Your task to perform on an android device: turn notification dots on Image 0: 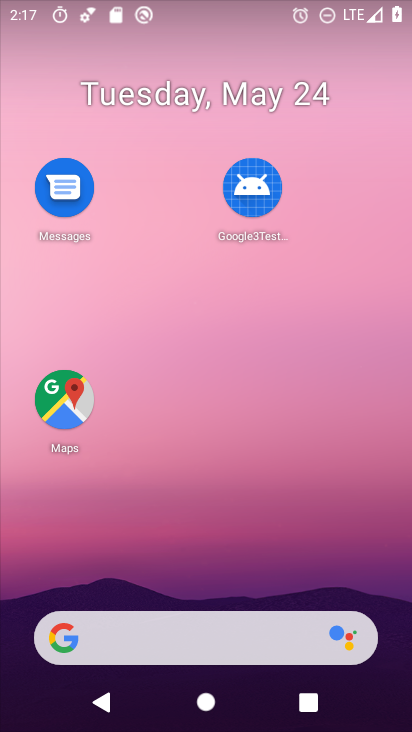
Step 0: drag from (233, 518) to (68, 73)
Your task to perform on an android device: turn notification dots on Image 1: 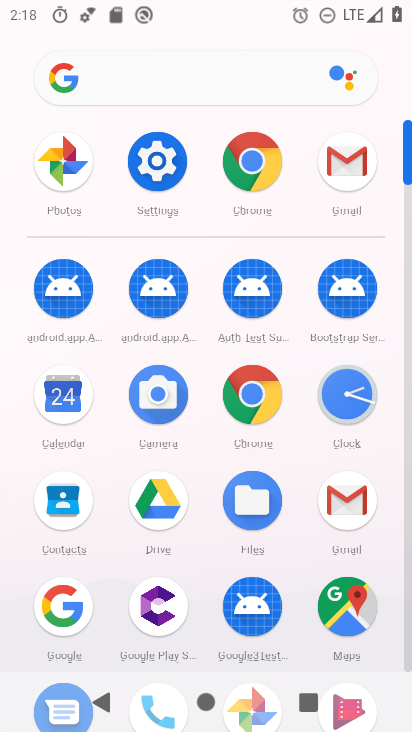
Step 1: press home button
Your task to perform on an android device: turn notification dots on Image 2: 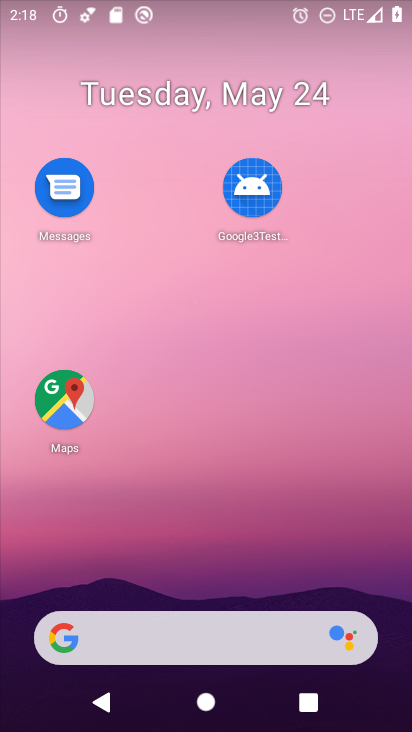
Step 2: drag from (158, 427) to (103, 82)
Your task to perform on an android device: turn notification dots on Image 3: 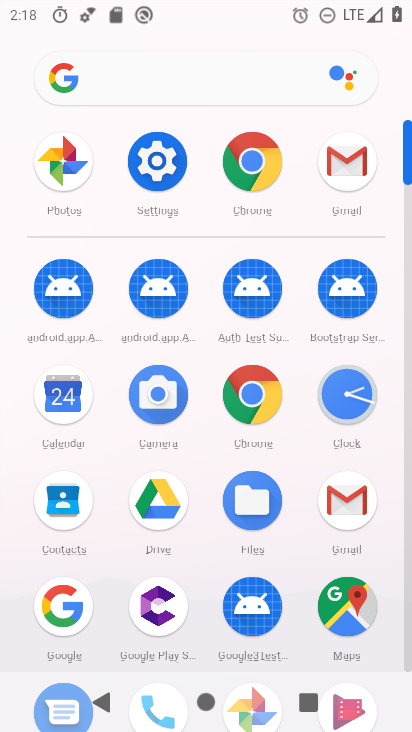
Step 3: click (150, 165)
Your task to perform on an android device: turn notification dots on Image 4: 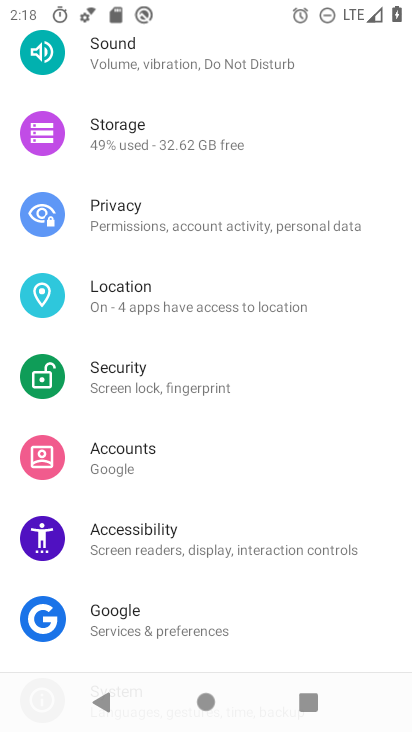
Step 4: drag from (153, 132) to (71, 686)
Your task to perform on an android device: turn notification dots on Image 5: 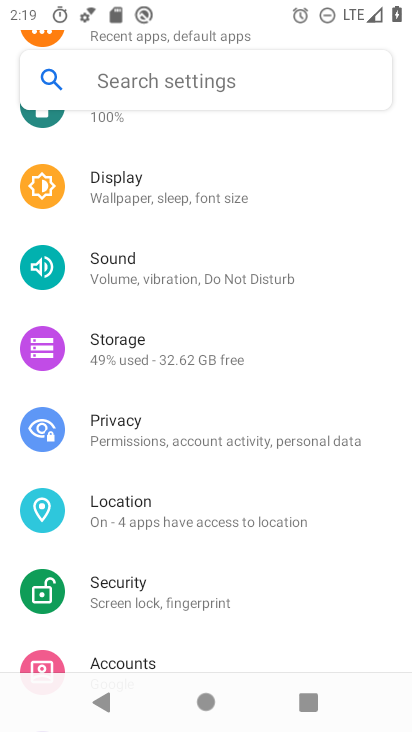
Step 5: click (94, 700)
Your task to perform on an android device: turn notification dots on Image 6: 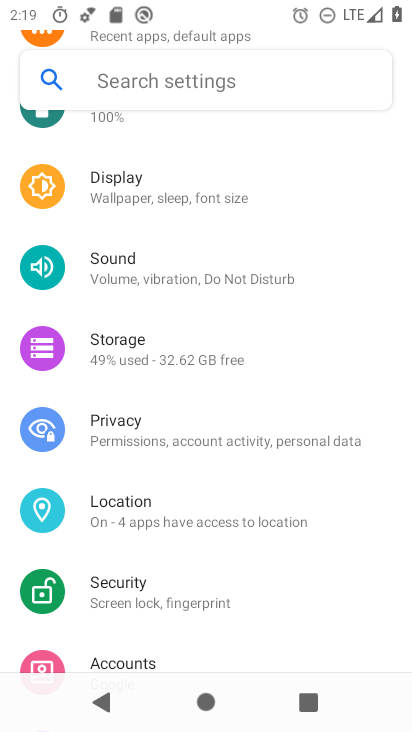
Step 6: drag from (111, 157) to (98, 472)
Your task to perform on an android device: turn notification dots on Image 7: 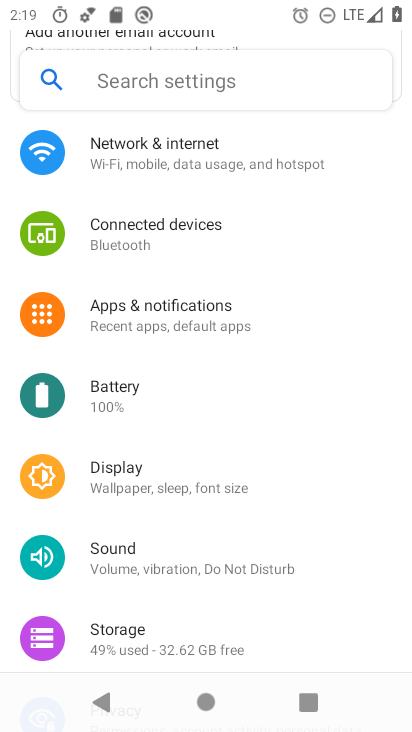
Step 7: click (166, 322)
Your task to perform on an android device: turn notification dots on Image 8: 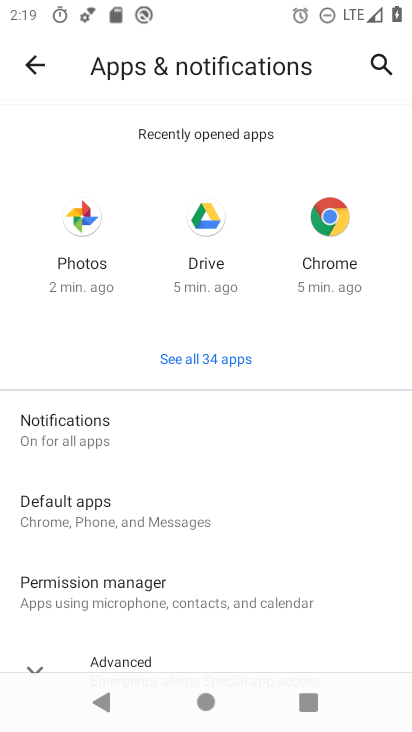
Step 8: click (60, 441)
Your task to perform on an android device: turn notification dots on Image 9: 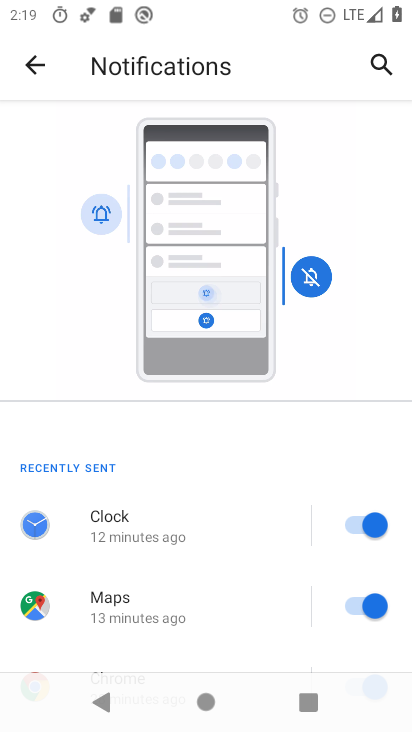
Step 9: drag from (238, 453) to (269, 230)
Your task to perform on an android device: turn notification dots on Image 10: 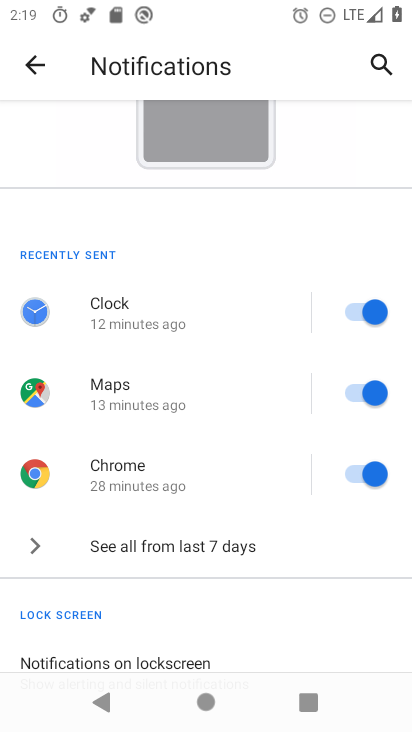
Step 10: drag from (177, 621) to (202, 273)
Your task to perform on an android device: turn notification dots on Image 11: 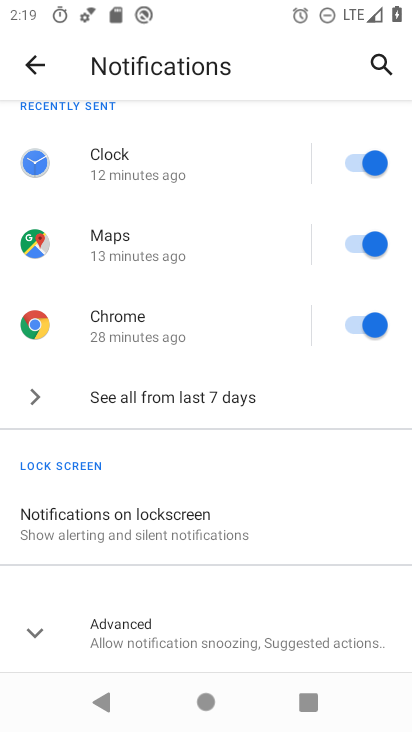
Step 11: drag from (169, 578) to (169, 310)
Your task to perform on an android device: turn notification dots on Image 12: 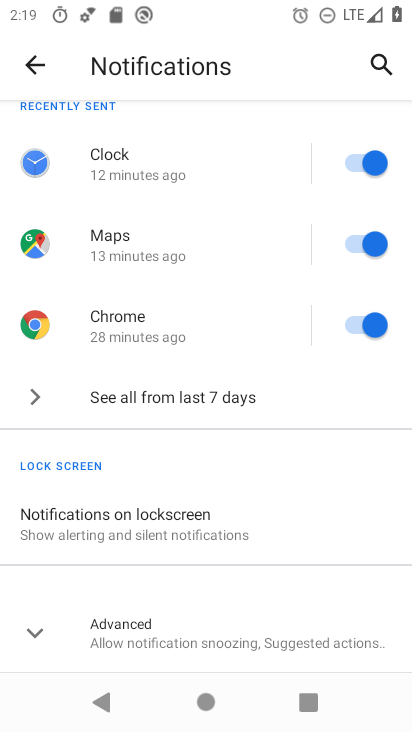
Step 12: click (145, 640)
Your task to perform on an android device: turn notification dots on Image 13: 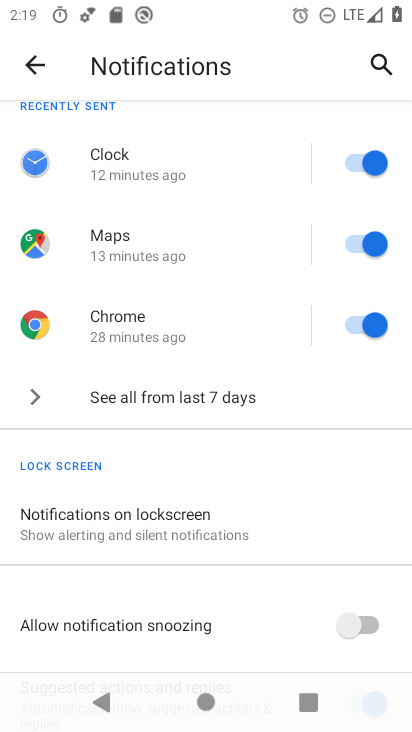
Step 13: drag from (145, 640) to (163, 277)
Your task to perform on an android device: turn notification dots on Image 14: 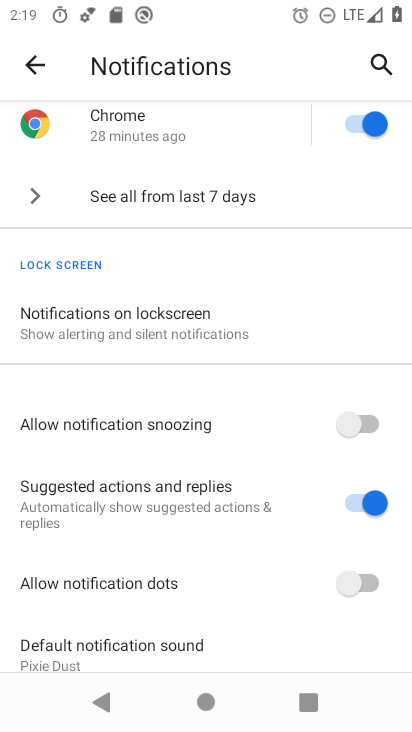
Step 14: click (386, 583)
Your task to perform on an android device: turn notification dots on Image 15: 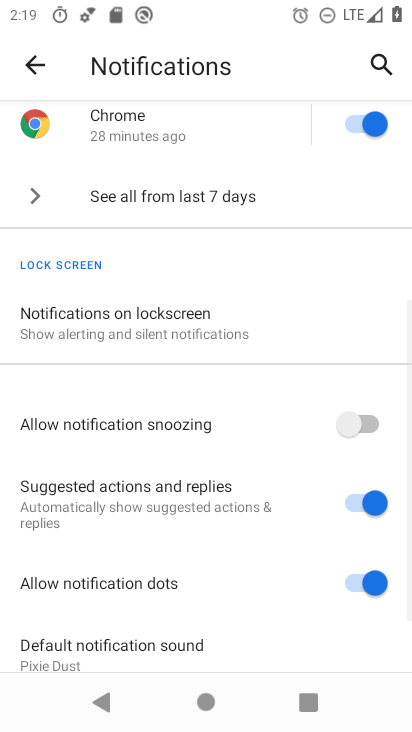
Step 15: task complete